Your task to perform on an android device: open app "Google Photos" Image 0: 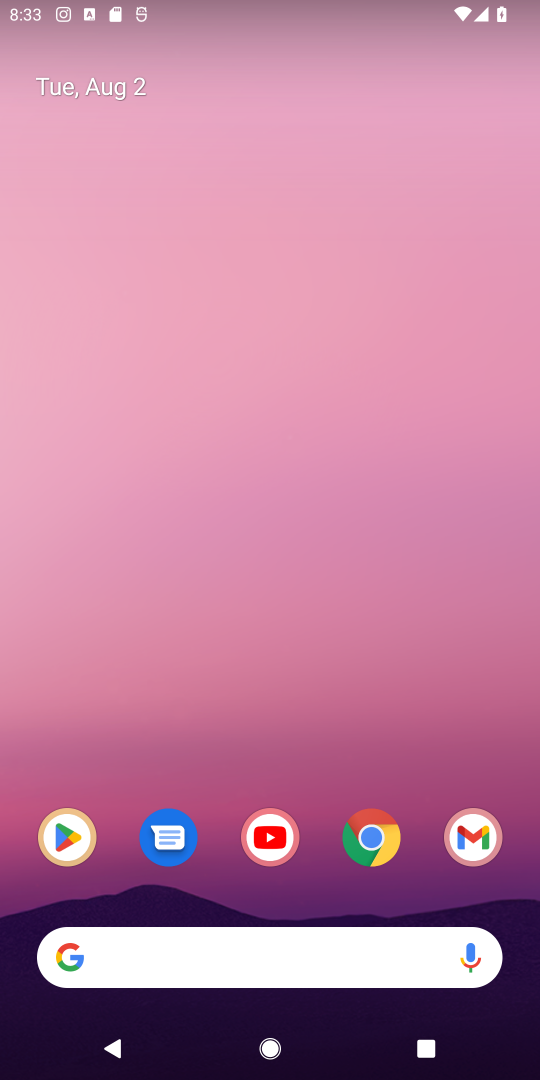
Step 0: click (75, 830)
Your task to perform on an android device: open app "Google Photos" Image 1: 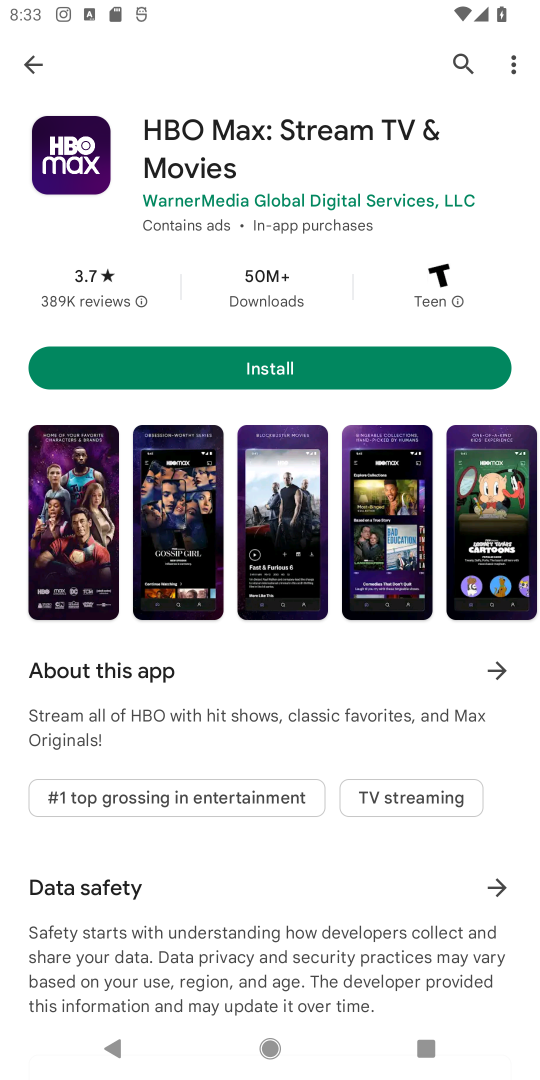
Step 1: click (461, 46)
Your task to perform on an android device: open app "Google Photos" Image 2: 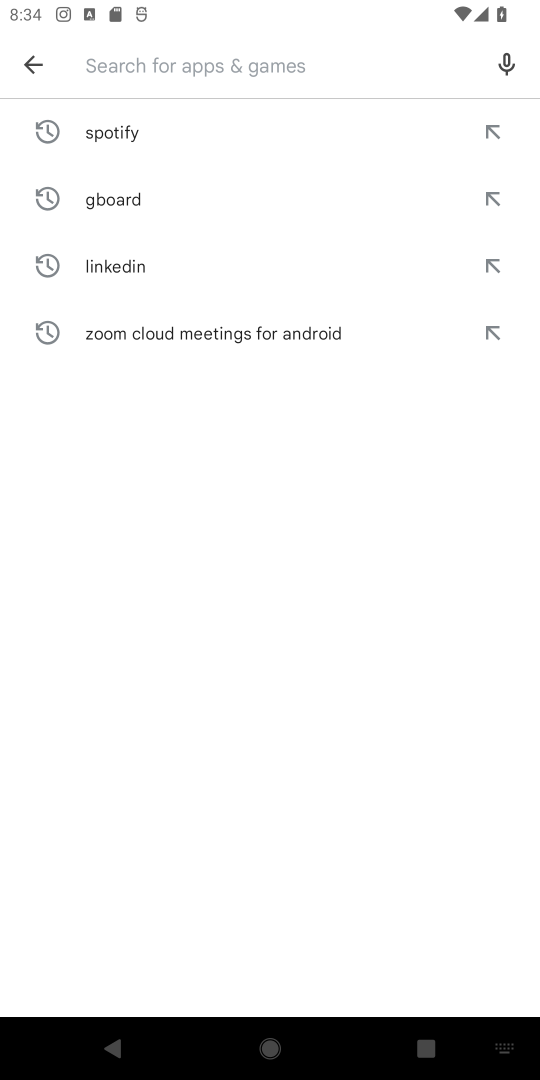
Step 2: type "Google Photos"
Your task to perform on an android device: open app "Google Photos" Image 3: 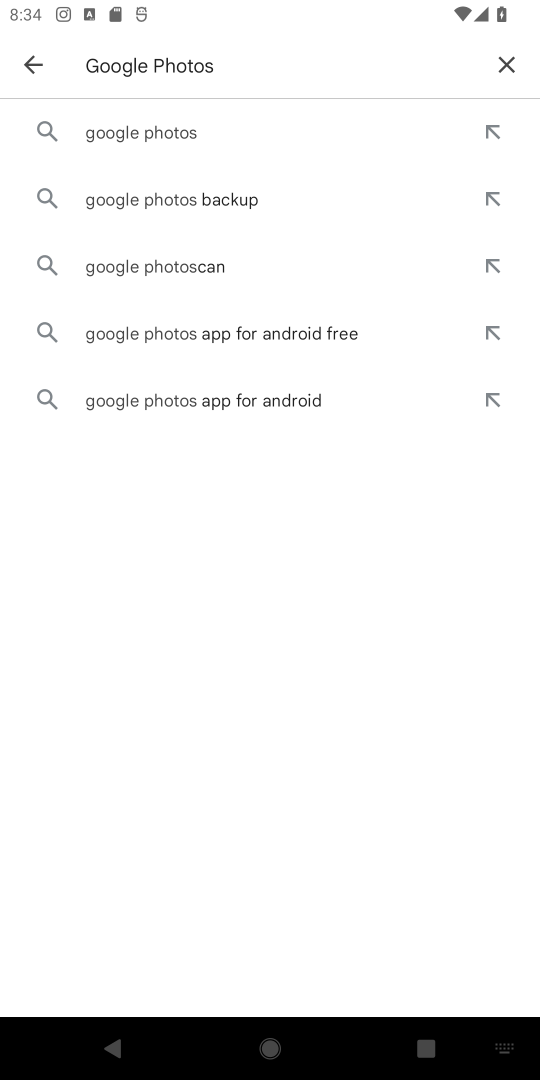
Step 3: click (131, 133)
Your task to perform on an android device: open app "Google Photos" Image 4: 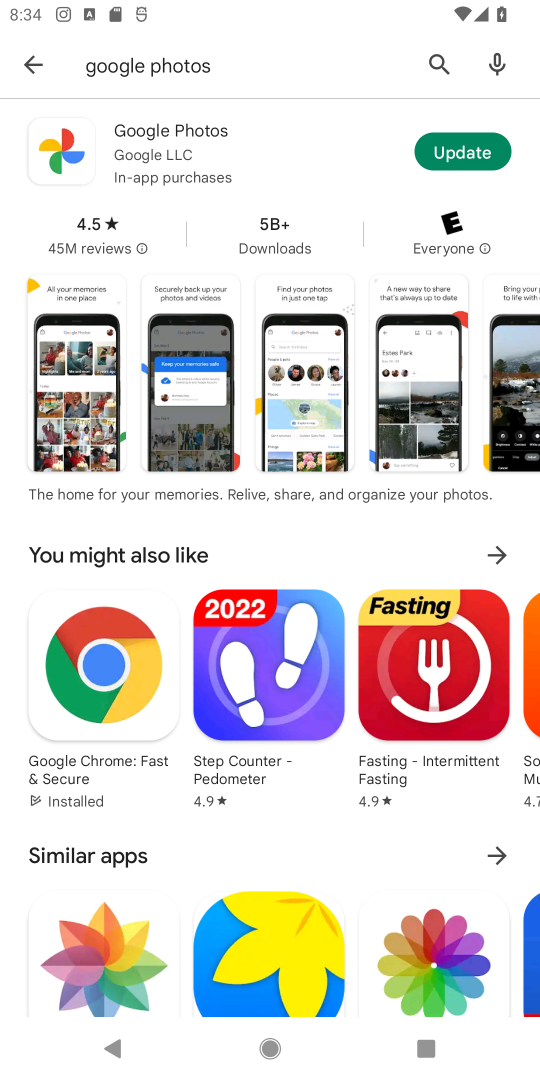
Step 4: click (116, 141)
Your task to perform on an android device: open app "Google Photos" Image 5: 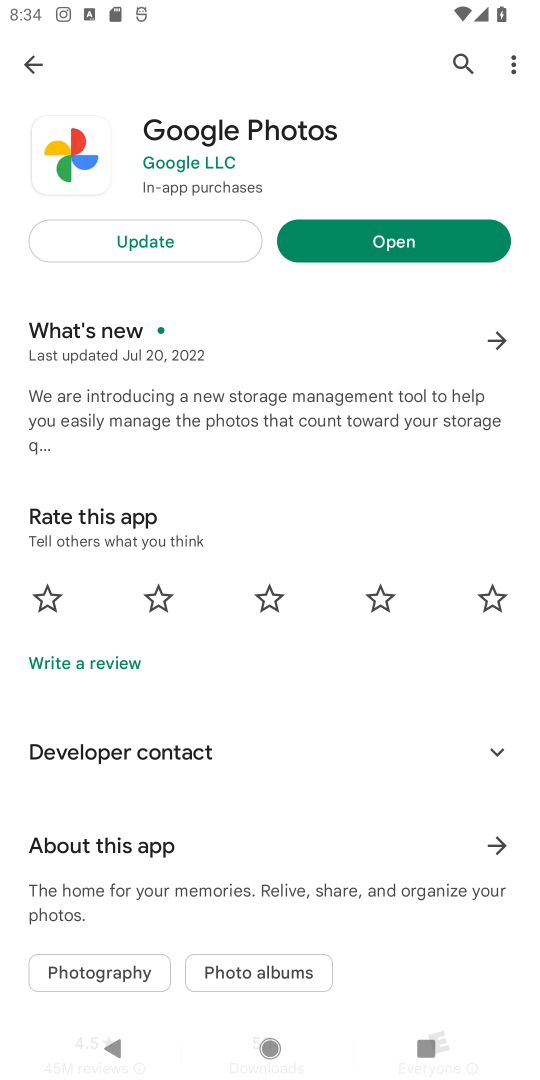
Step 5: click (324, 230)
Your task to perform on an android device: open app "Google Photos" Image 6: 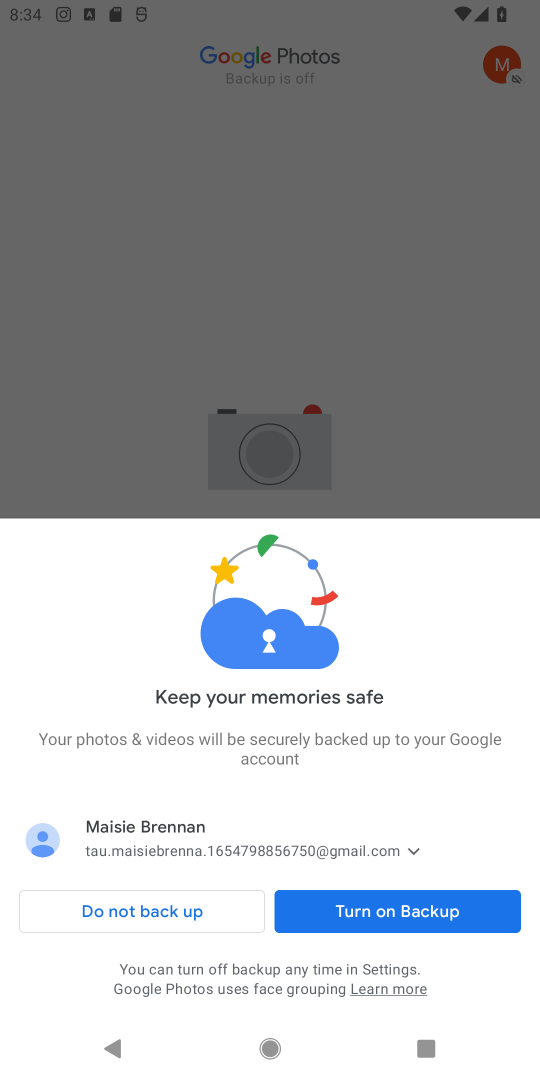
Step 6: task complete